Your task to perform on an android device: Find a good burger place on Maps Image 0: 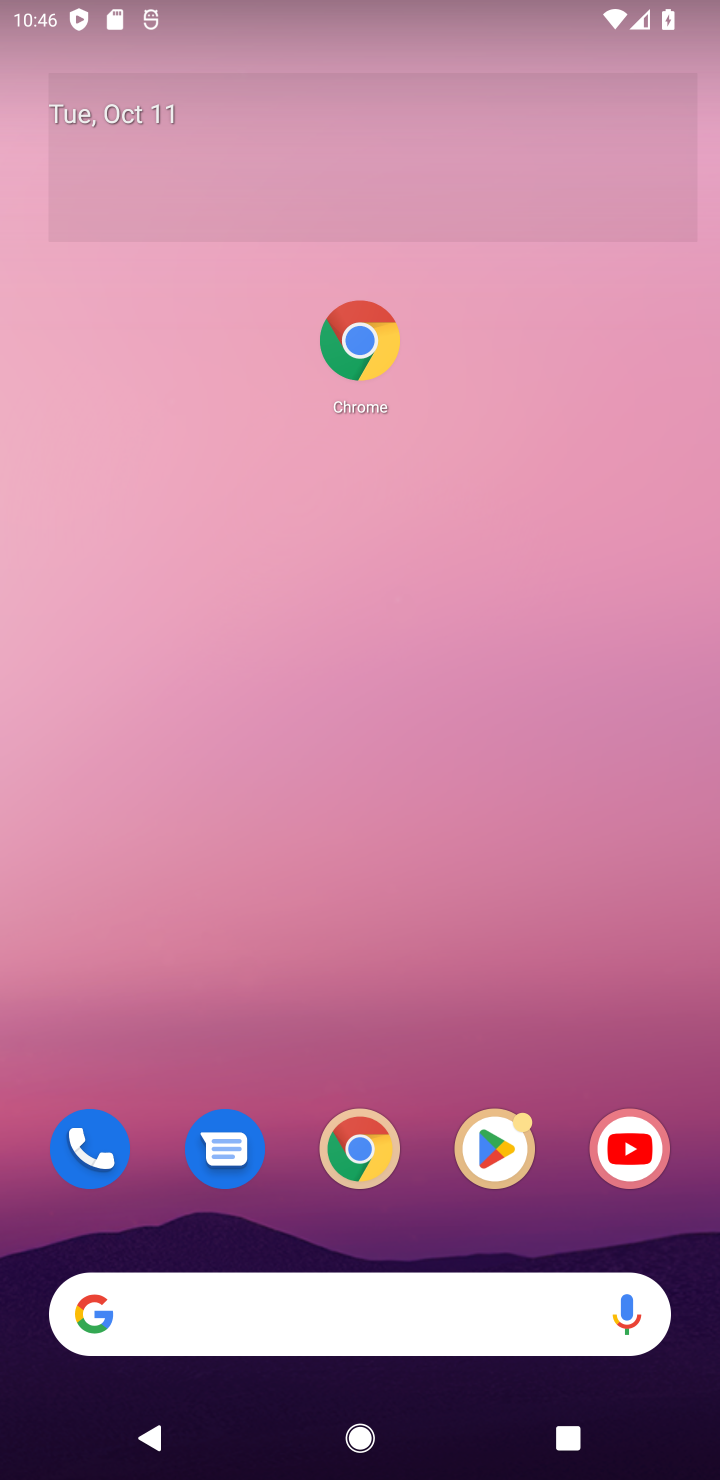
Step 0: drag from (374, 1183) to (420, 35)
Your task to perform on an android device: Find a good burger place on Maps Image 1: 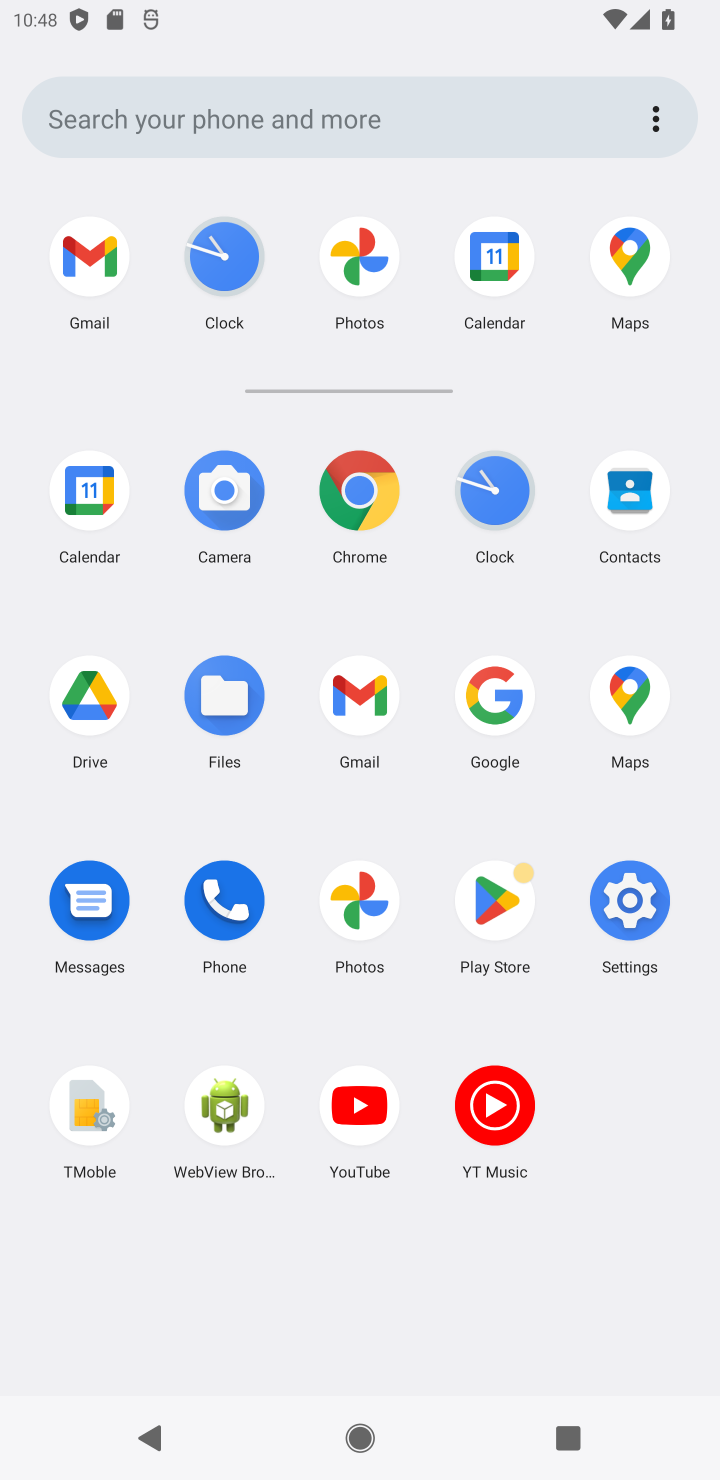
Step 1: click (349, 499)
Your task to perform on an android device: Find a good burger place on Maps Image 2: 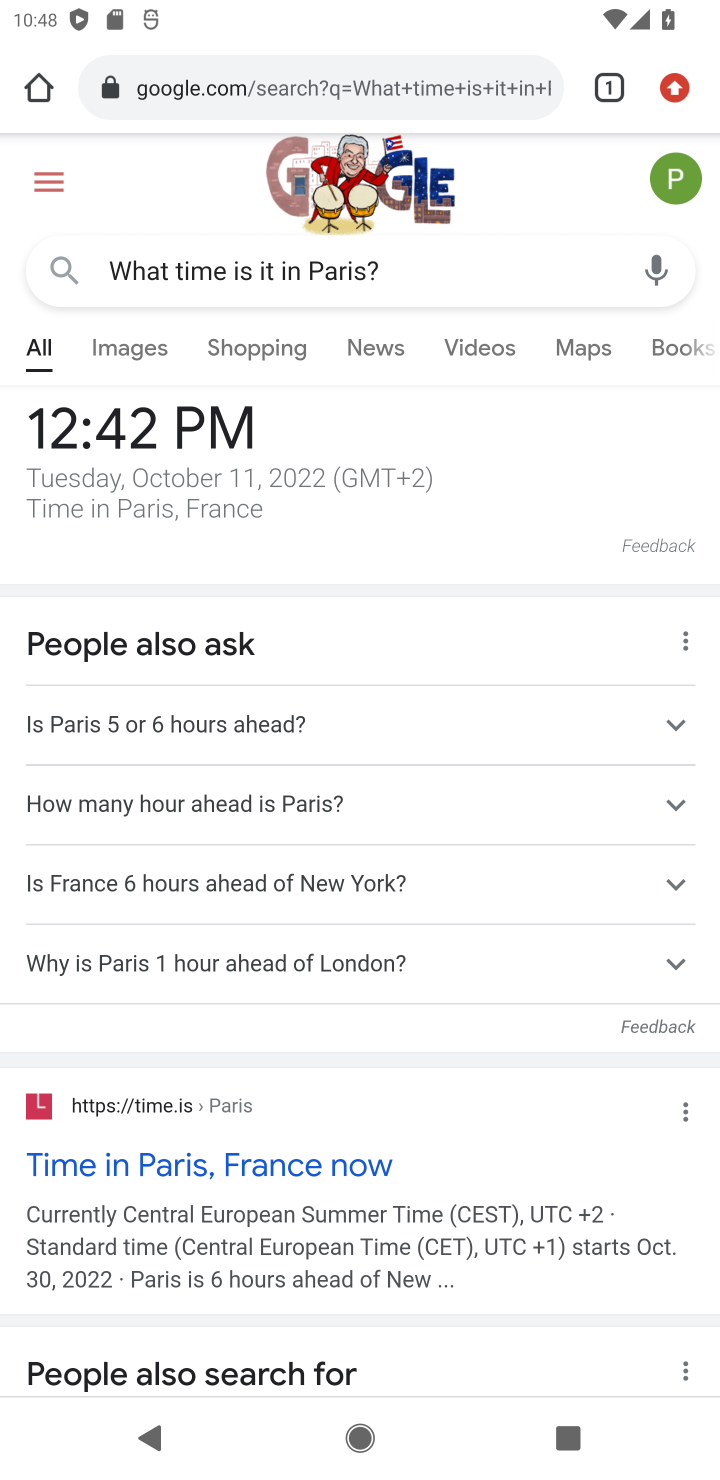
Step 2: press back button
Your task to perform on an android device: Find a good burger place on Maps Image 3: 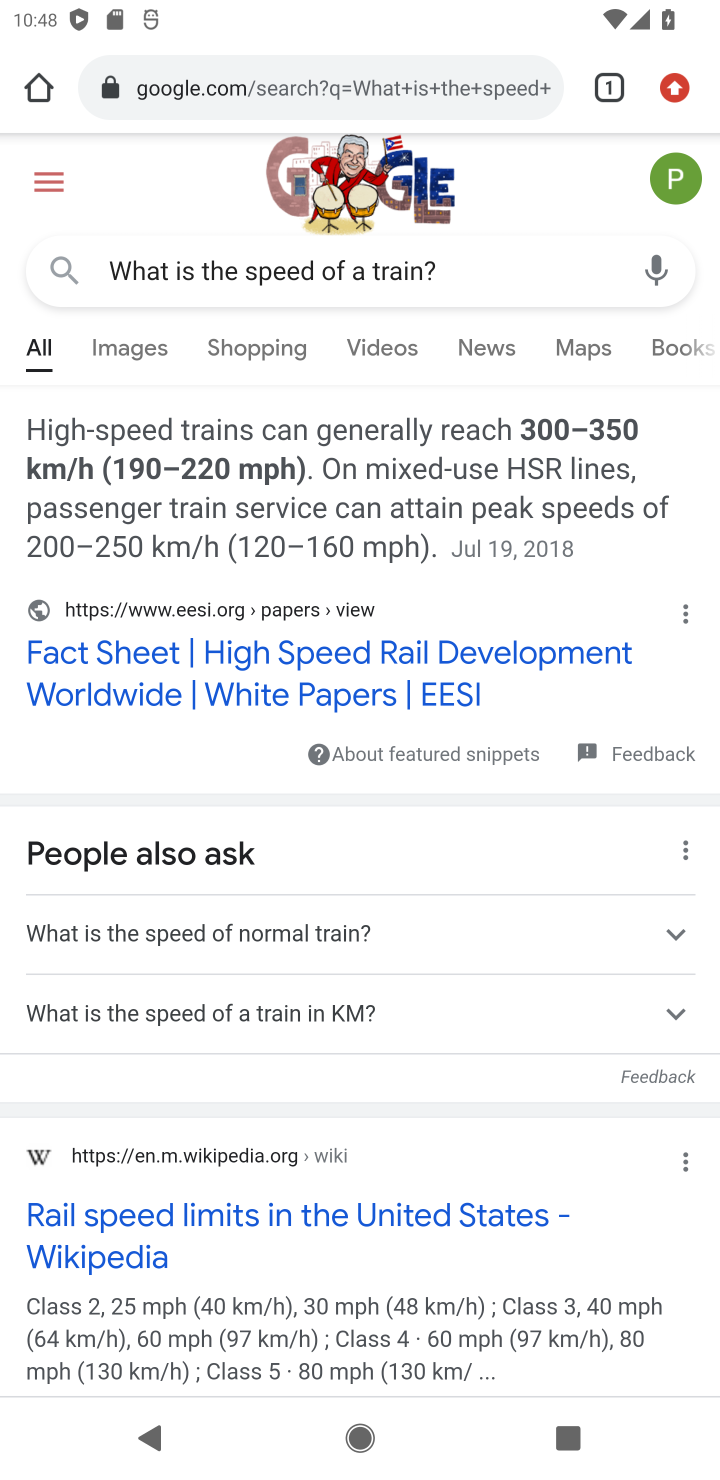
Step 3: press home button
Your task to perform on an android device: Find a good burger place on Maps Image 4: 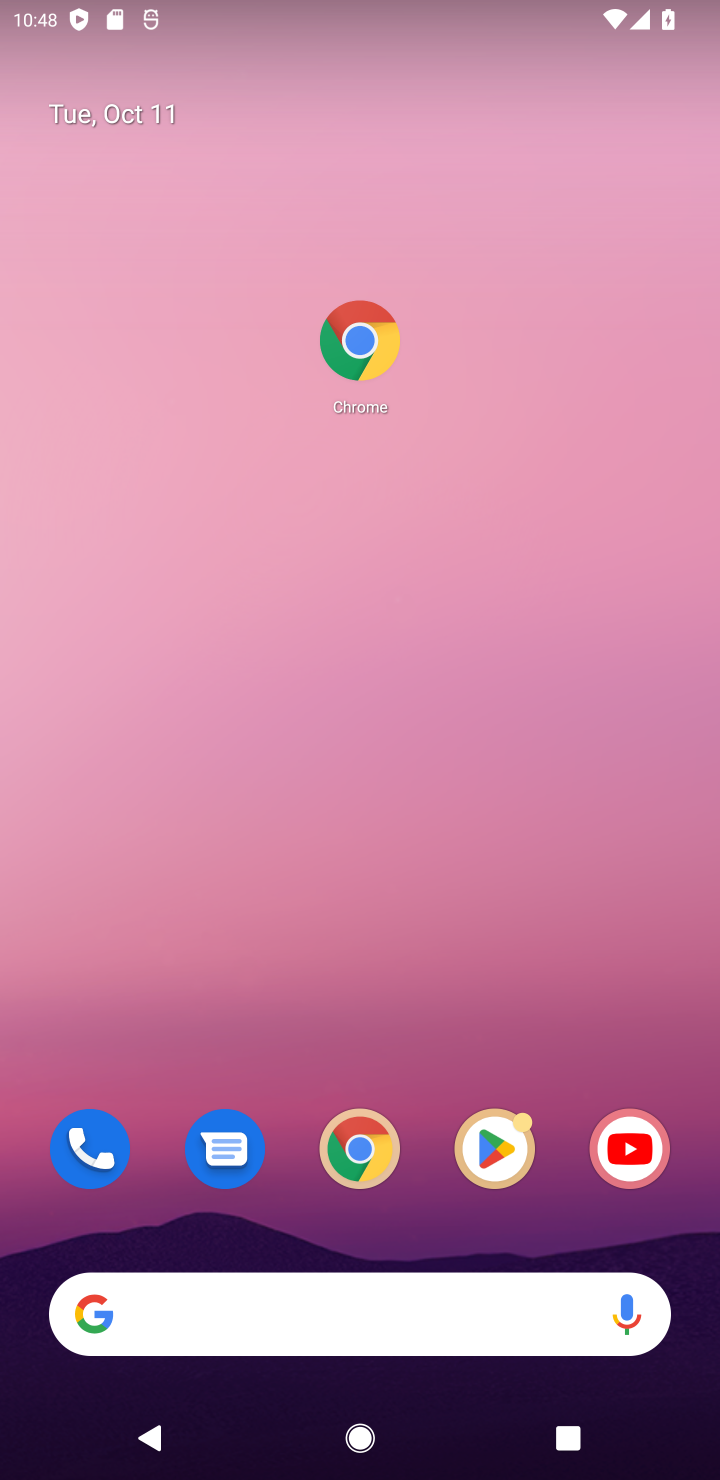
Step 4: drag from (396, 1050) to (271, 137)
Your task to perform on an android device: Find a good burger place on Maps Image 5: 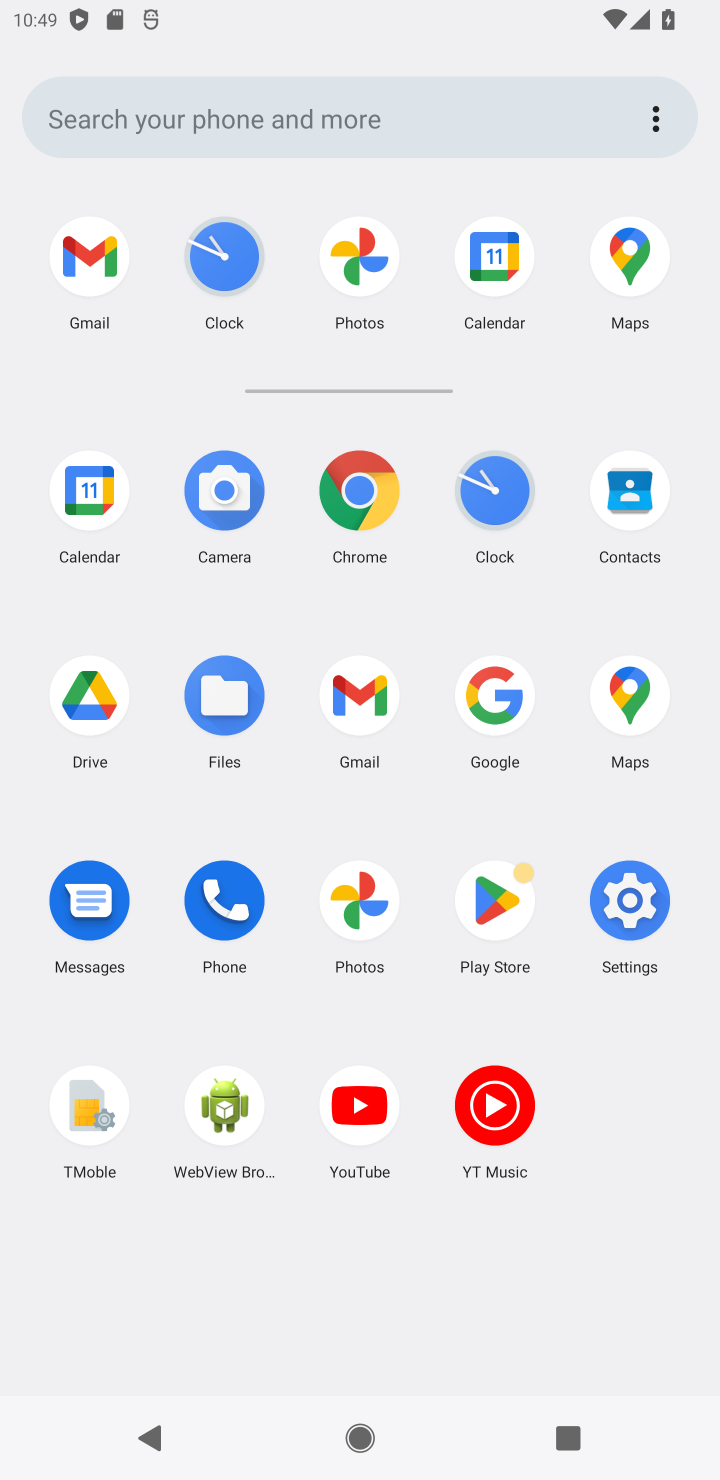
Step 5: click (616, 687)
Your task to perform on an android device: Find a good burger place on Maps Image 6: 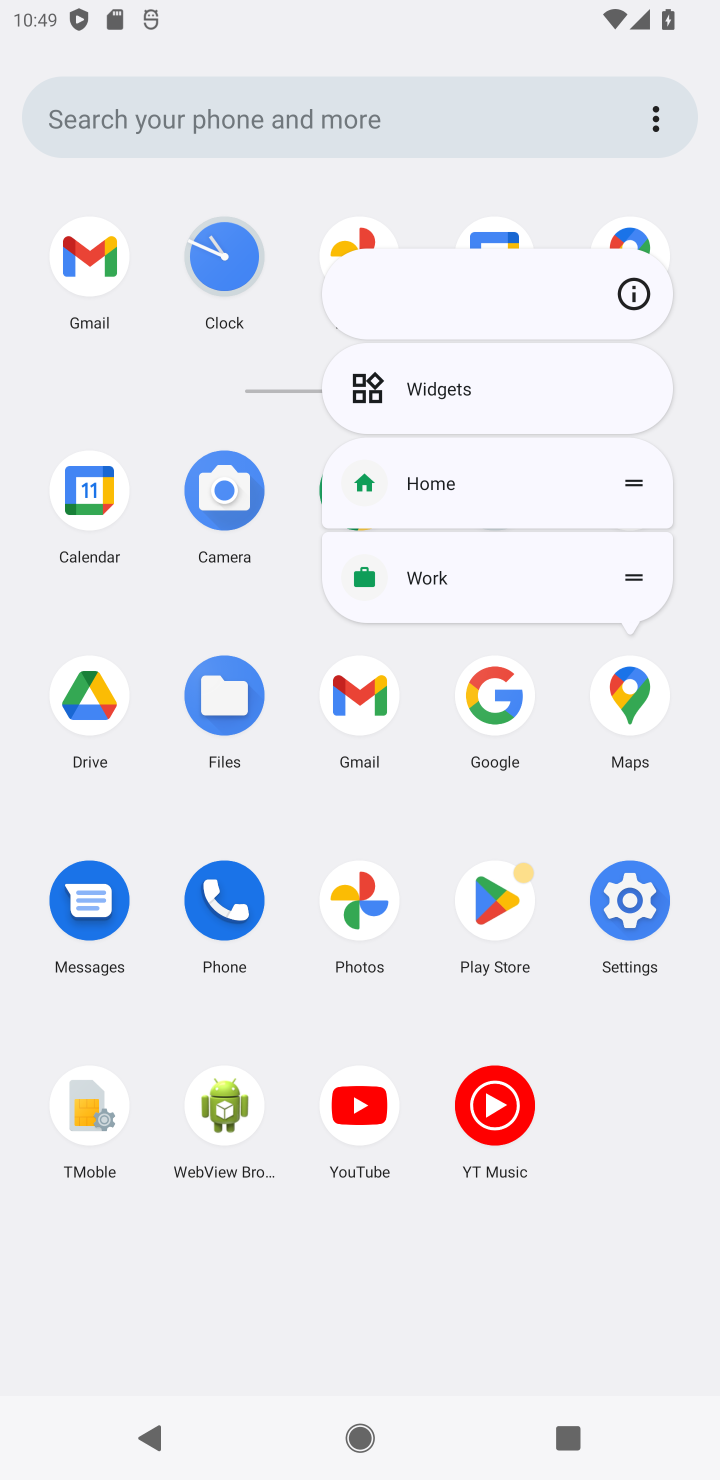
Step 6: click (621, 694)
Your task to perform on an android device: Find a good burger place on Maps Image 7: 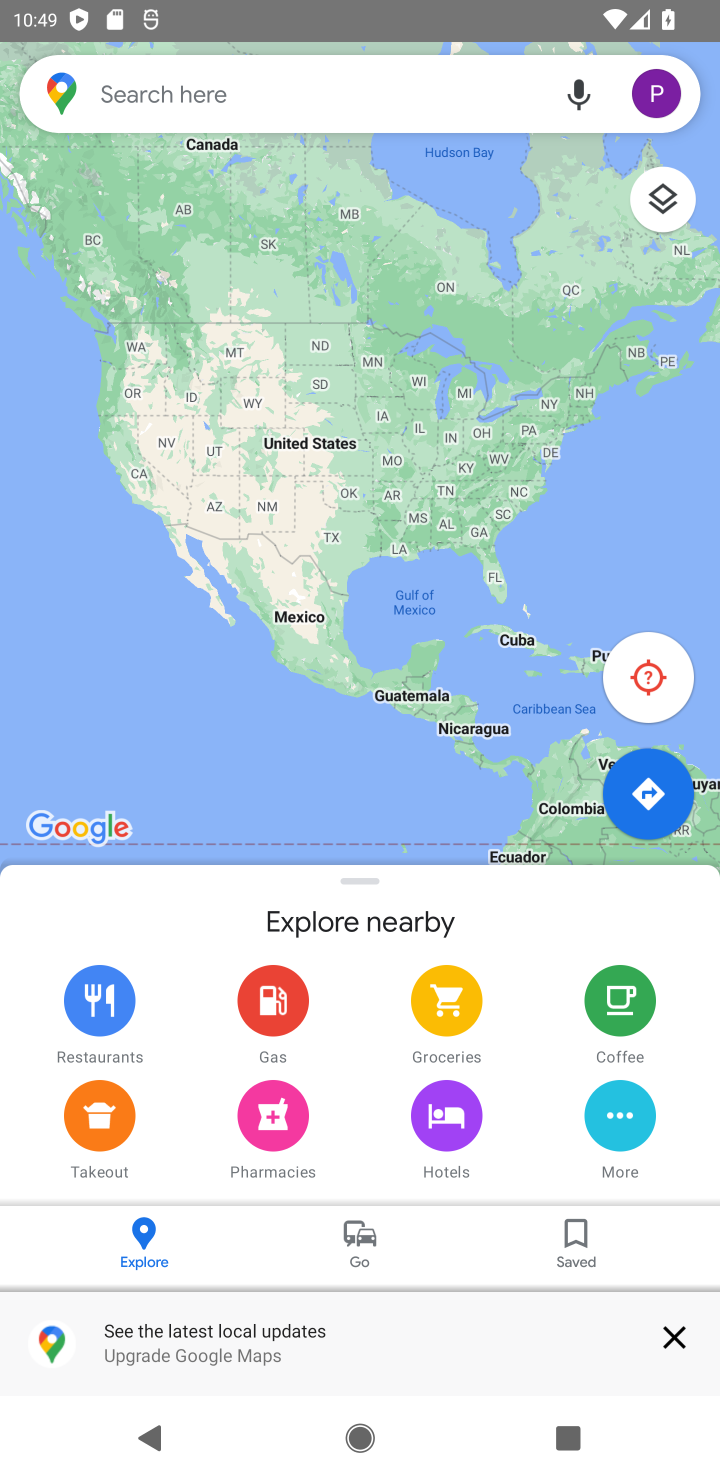
Step 7: click (246, 101)
Your task to perform on an android device: Find a good burger place on Maps Image 8: 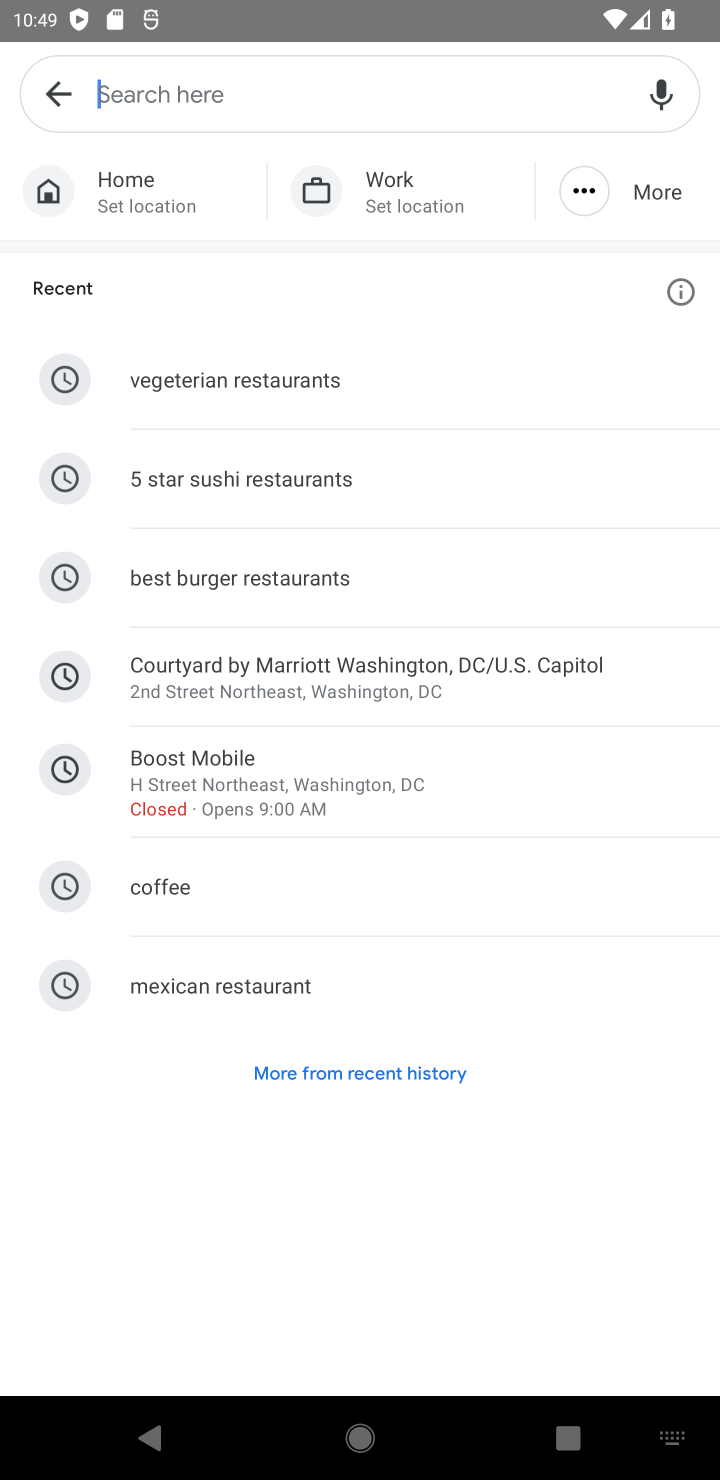
Step 8: type "good burger place"
Your task to perform on an android device: Find a good burger place on Maps Image 9: 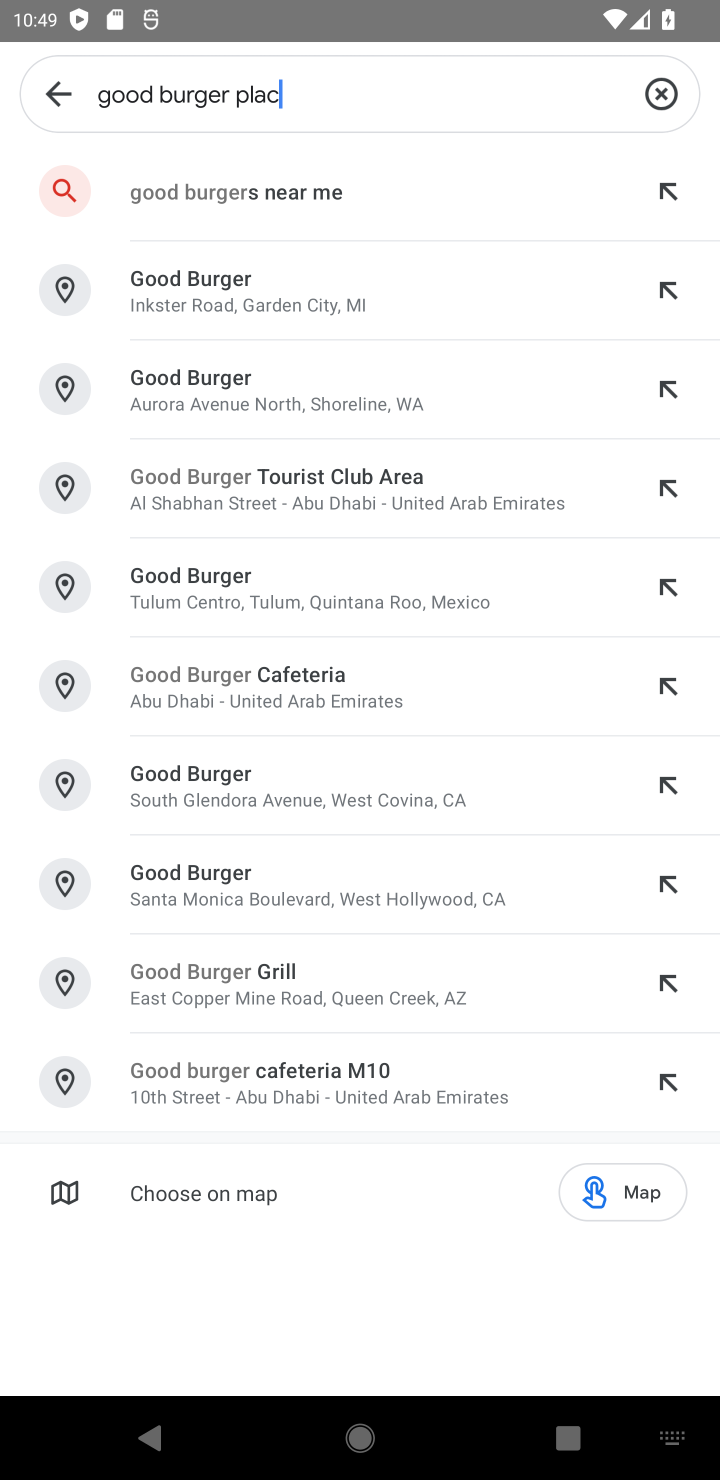
Step 9: press enter
Your task to perform on an android device: Find a good burger place on Maps Image 10: 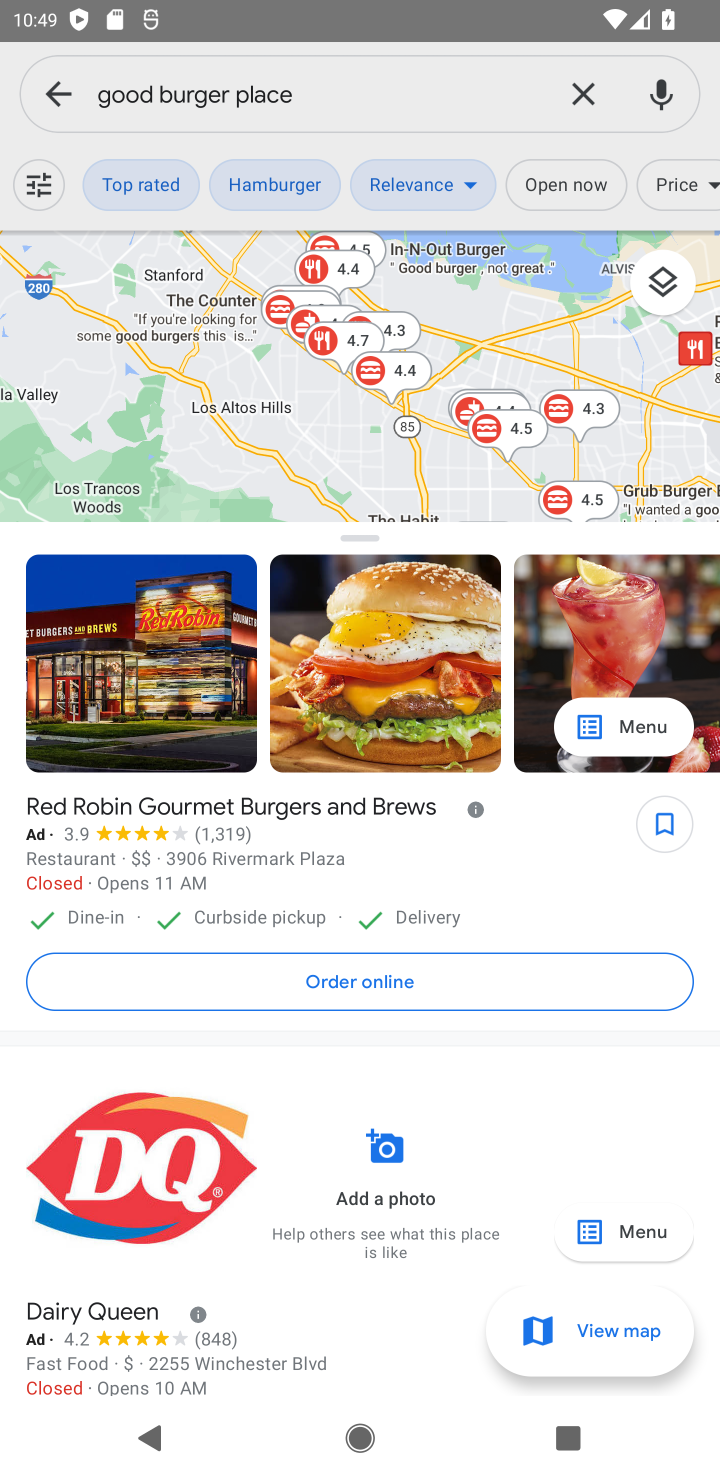
Step 10: task complete